Your task to perform on an android device: toggle pop-ups in chrome Image 0: 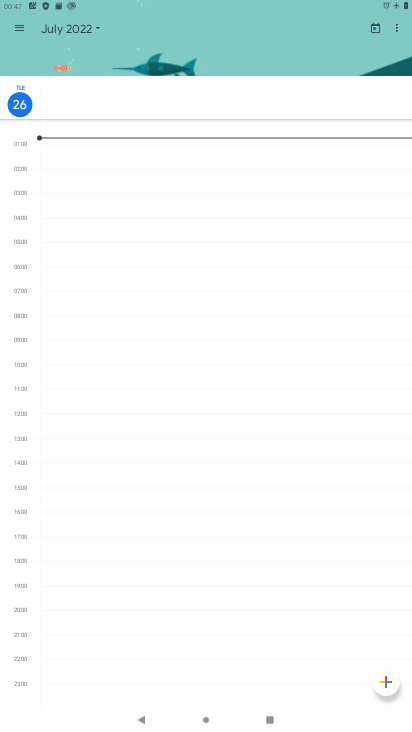
Step 0: press home button
Your task to perform on an android device: toggle pop-ups in chrome Image 1: 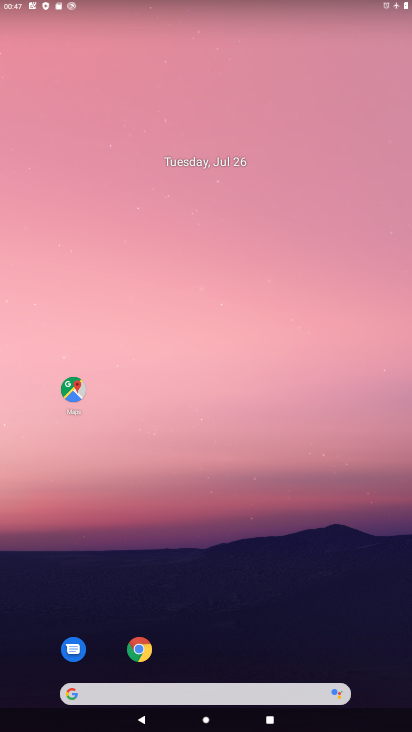
Step 1: drag from (220, 721) to (230, 85)
Your task to perform on an android device: toggle pop-ups in chrome Image 2: 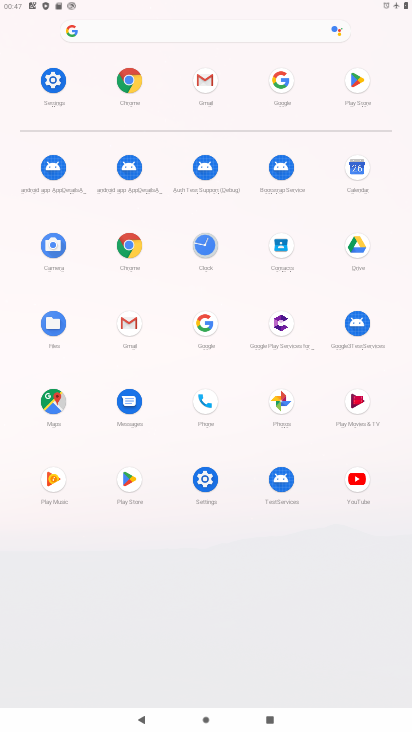
Step 2: click (130, 243)
Your task to perform on an android device: toggle pop-ups in chrome Image 3: 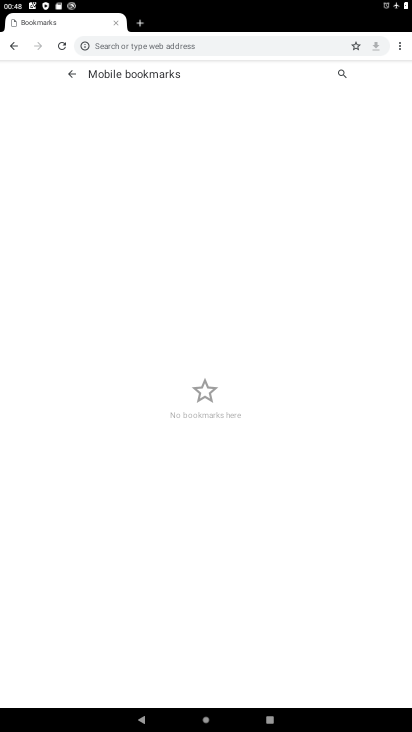
Step 3: click (397, 50)
Your task to perform on an android device: toggle pop-ups in chrome Image 4: 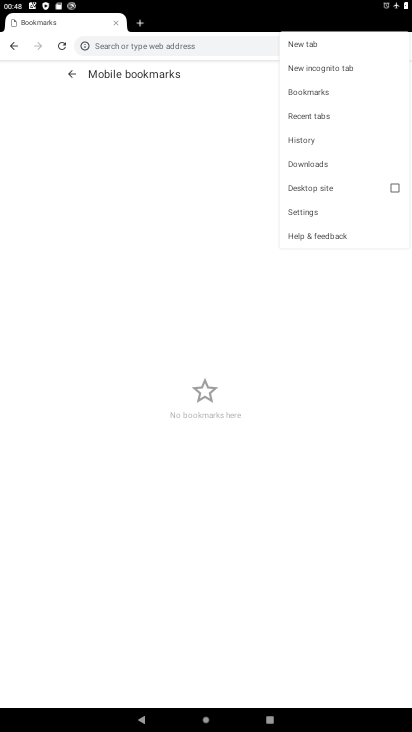
Step 4: click (303, 210)
Your task to perform on an android device: toggle pop-ups in chrome Image 5: 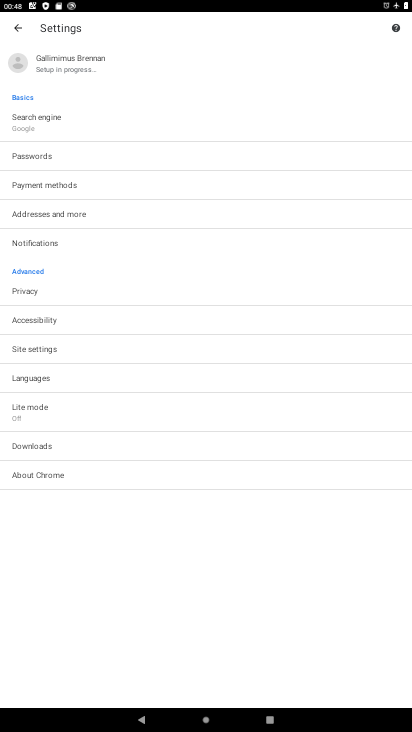
Step 5: click (54, 346)
Your task to perform on an android device: toggle pop-ups in chrome Image 6: 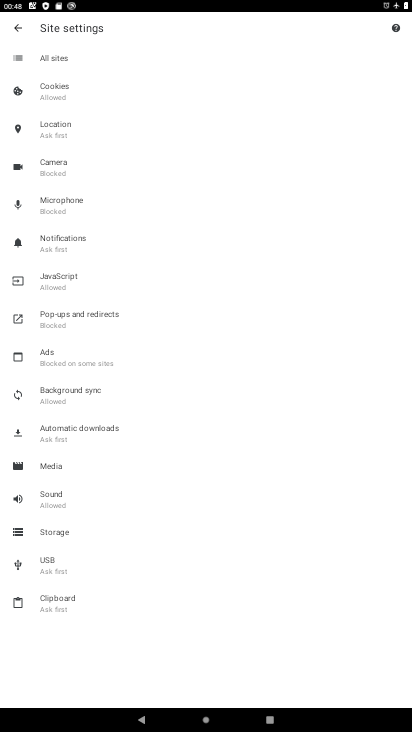
Step 6: click (80, 313)
Your task to perform on an android device: toggle pop-ups in chrome Image 7: 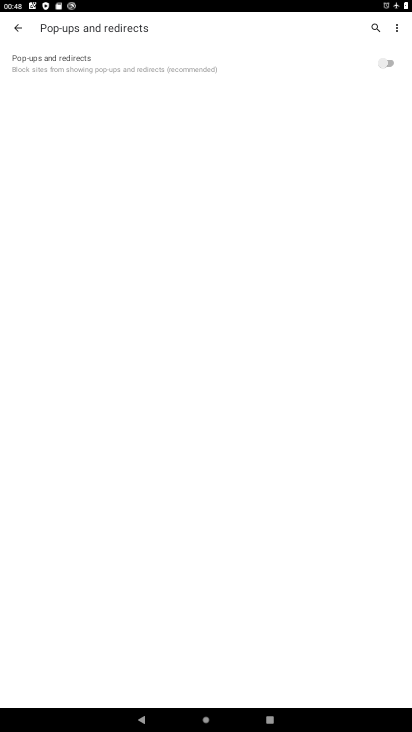
Step 7: click (391, 57)
Your task to perform on an android device: toggle pop-ups in chrome Image 8: 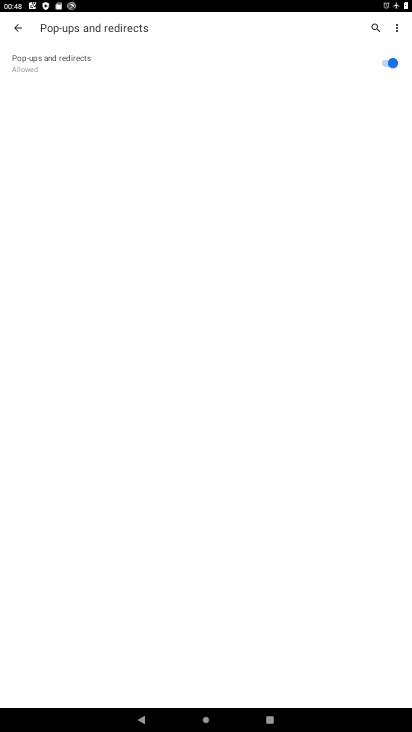
Step 8: task complete